Your task to perform on an android device: turn off improve location accuracy Image 0: 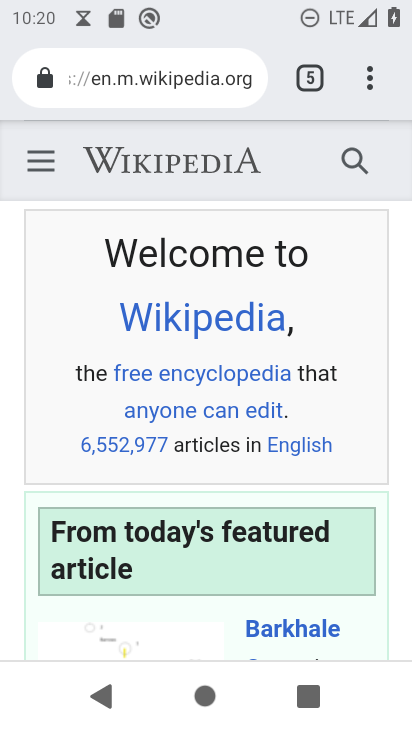
Step 0: press back button
Your task to perform on an android device: turn off improve location accuracy Image 1: 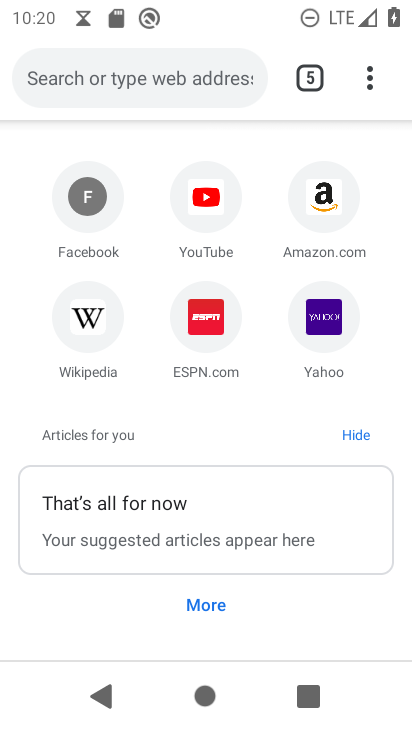
Step 1: press back button
Your task to perform on an android device: turn off improve location accuracy Image 2: 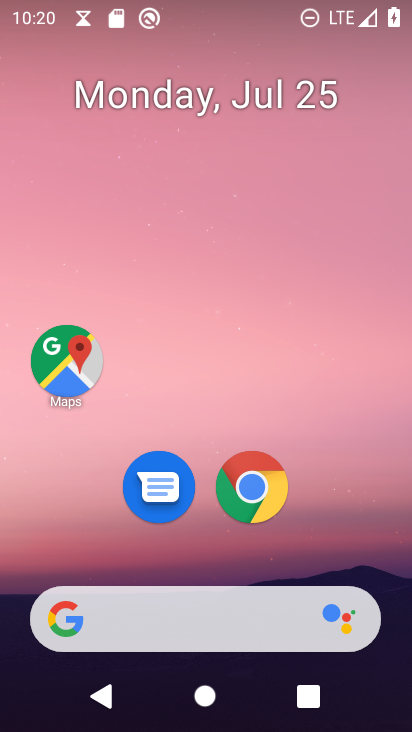
Step 2: drag from (218, 552) to (301, 0)
Your task to perform on an android device: turn off improve location accuracy Image 3: 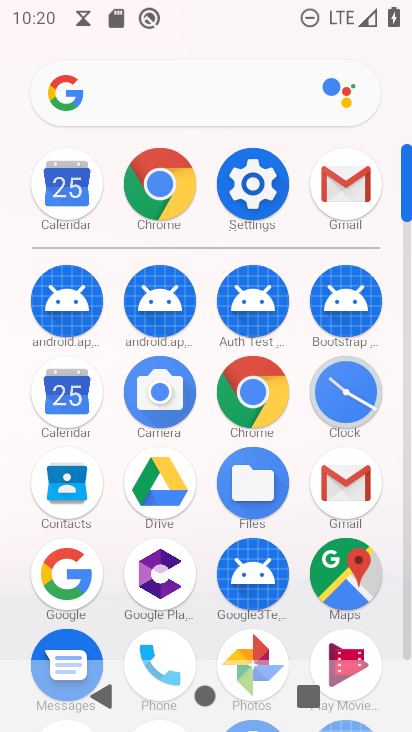
Step 3: click (250, 184)
Your task to perform on an android device: turn off improve location accuracy Image 4: 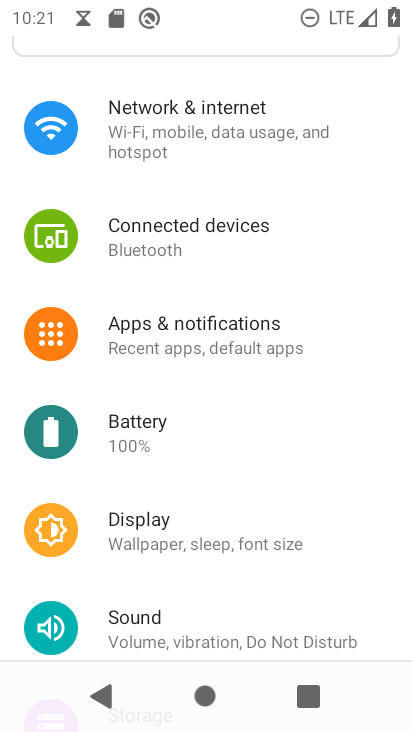
Step 4: drag from (172, 612) to (258, 62)
Your task to perform on an android device: turn off improve location accuracy Image 5: 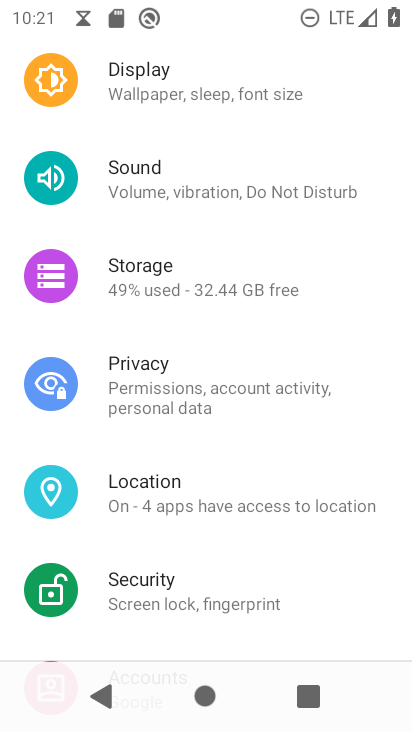
Step 5: click (154, 505)
Your task to perform on an android device: turn off improve location accuracy Image 6: 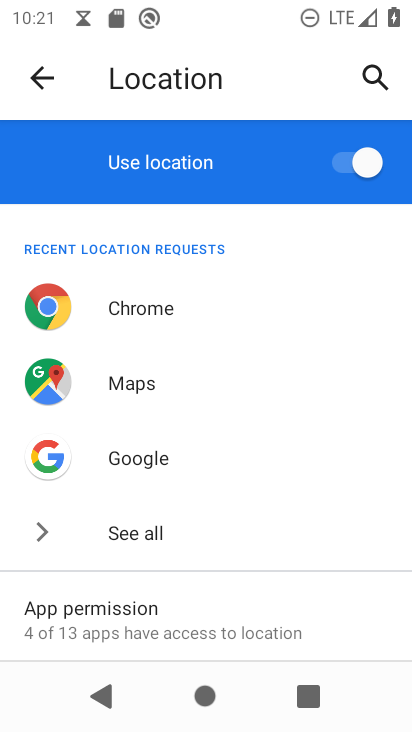
Step 6: drag from (168, 623) to (295, 65)
Your task to perform on an android device: turn off improve location accuracy Image 7: 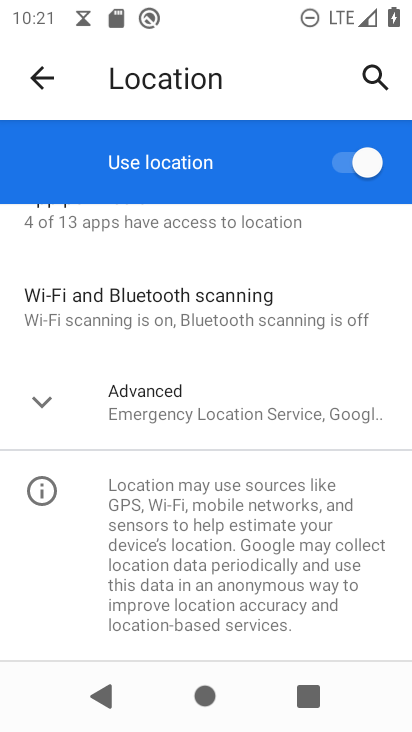
Step 7: click (164, 405)
Your task to perform on an android device: turn off improve location accuracy Image 8: 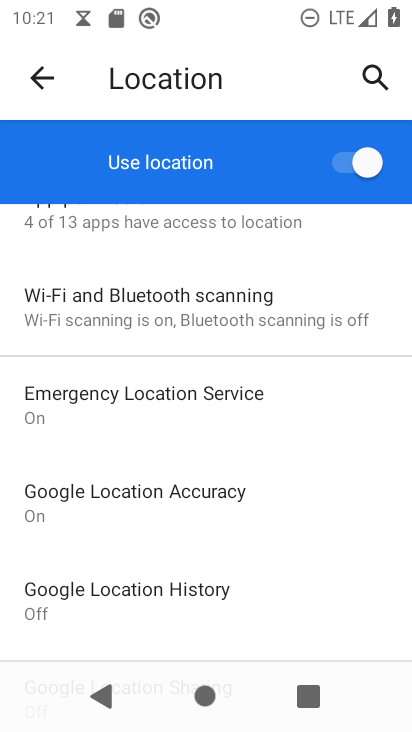
Step 8: click (166, 507)
Your task to perform on an android device: turn off improve location accuracy Image 9: 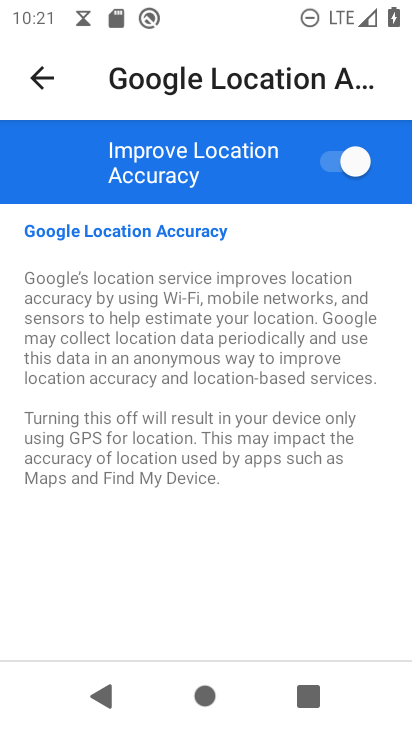
Step 9: click (354, 163)
Your task to perform on an android device: turn off improve location accuracy Image 10: 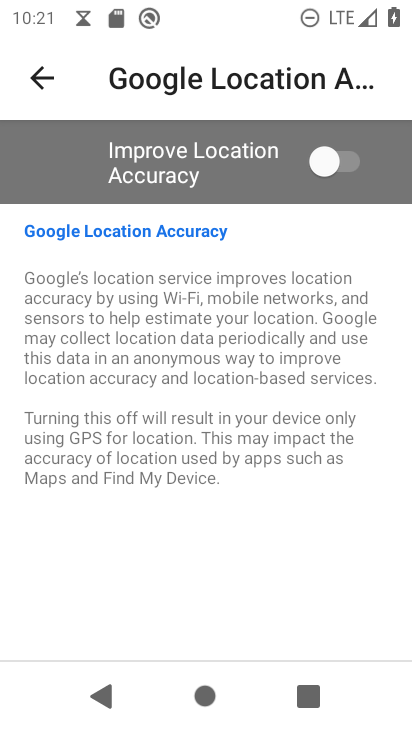
Step 10: task complete